Your task to perform on an android device: empty trash in the gmail app Image 0: 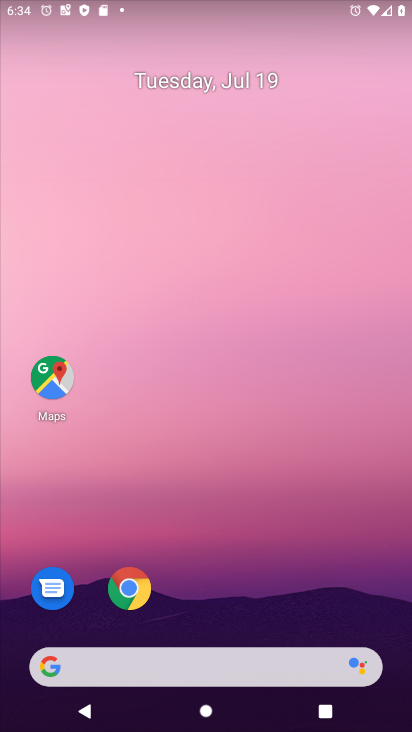
Step 0: drag from (301, 389) to (305, 11)
Your task to perform on an android device: empty trash in the gmail app Image 1: 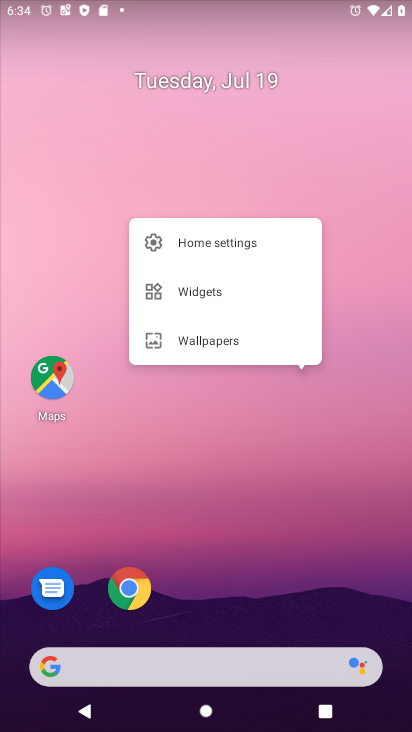
Step 1: drag from (279, 185) to (262, 60)
Your task to perform on an android device: empty trash in the gmail app Image 2: 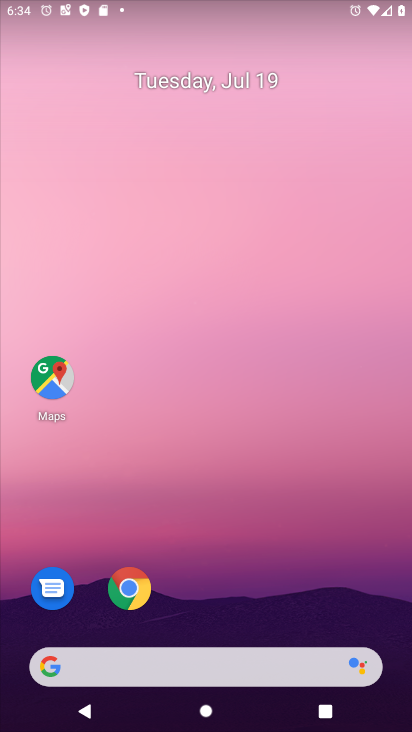
Step 2: drag from (231, 603) to (225, 132)
Your task to perform on an android device: empty trash in the gmail app Image 3: 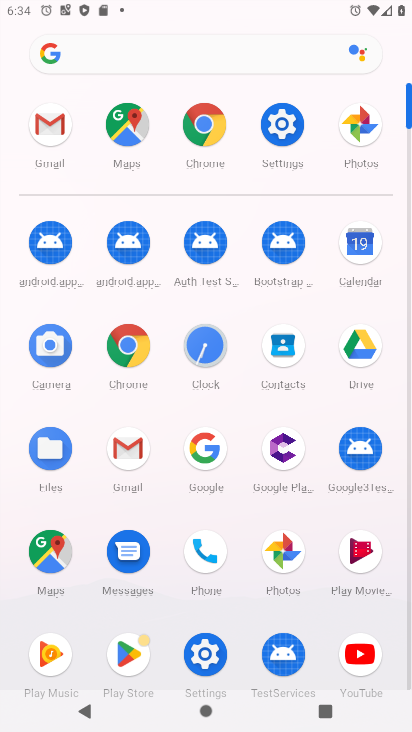
Step 3: click (63, 120)
Your task to perform on an android device: empty trash in the gmail app Image 4: 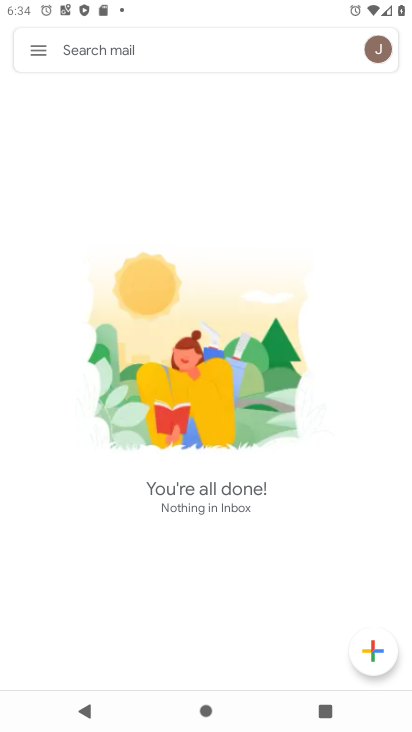
Step 4: click (47, 45)
Your task to perform on an android device: empty trash in the gmail app Image 5: 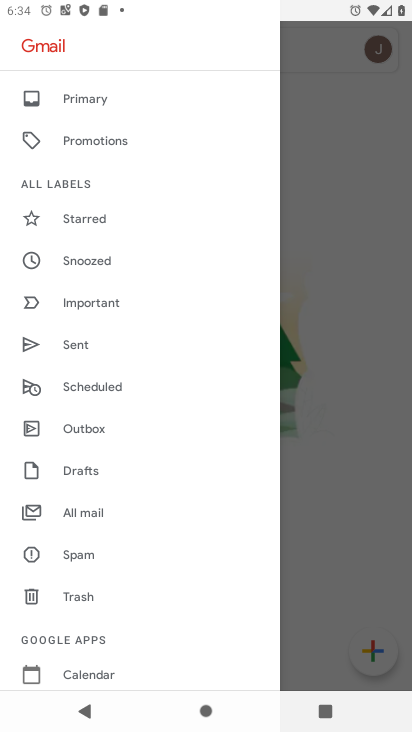
Step 5: click (87, 599)
Your task to perform on an android device: empty trash in the gmail app Image 6: 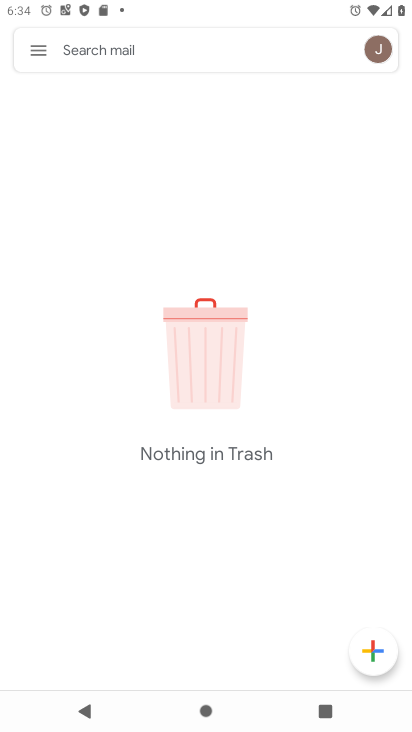
Step 6: task complete